Your task to perform on an android device: turn notification dots off Image 0: 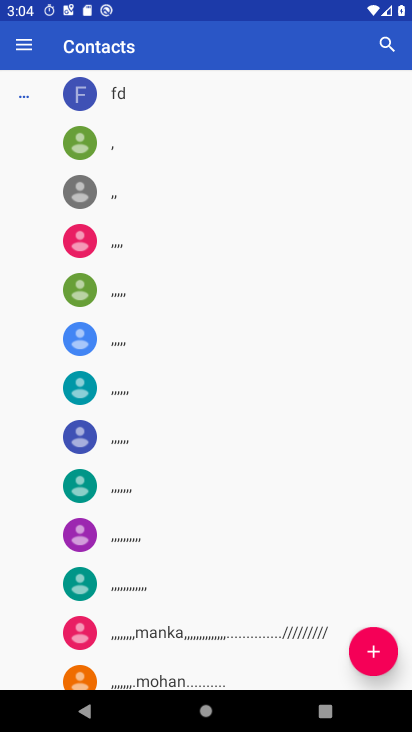
Step 0: press home button
Your task to perform on an android device: turn notification dots off Image 1: 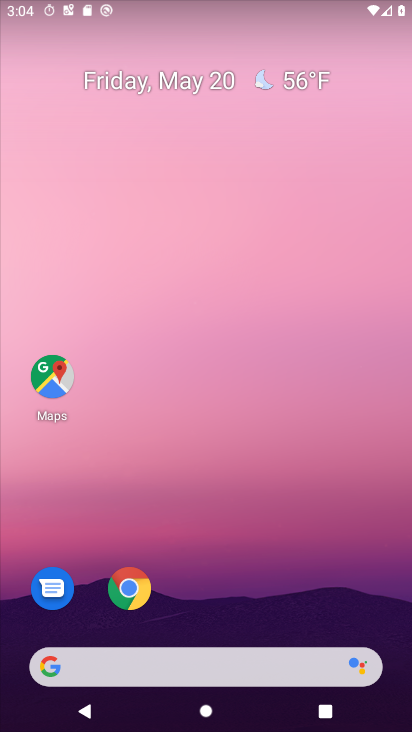
Step 1: drag from (24, 392) to (121, 98)
Your task to perform on an android device: turn notification dots off Image 2: 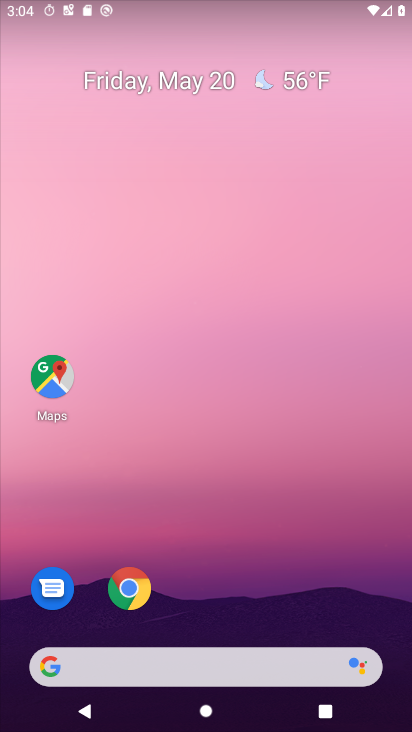
Step 2: drag from (1, 657) to (220, 212)
Your task to perform on an android device: turn notification dots off Image 3: 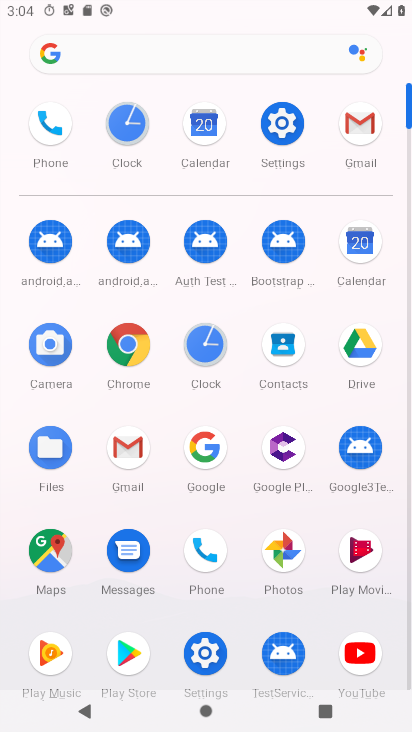
Step 3: click (262, 128)
Your task to perform on an android device: turn notification dots off Image 4: 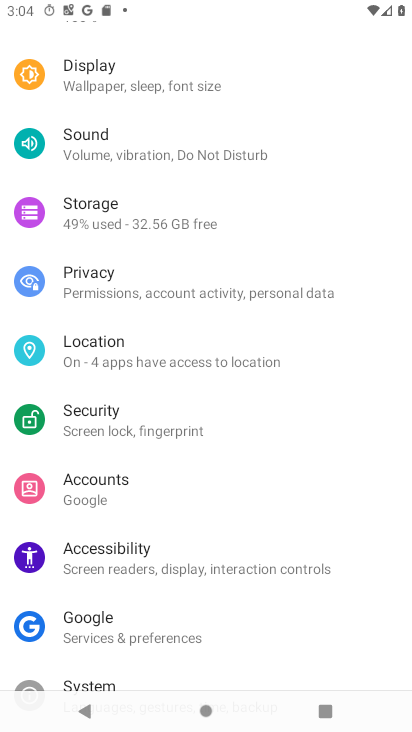
Step 4: drag from (103, 172) to (111, 541)
Your task to perform on an android device: turn notification dots off Image 5: 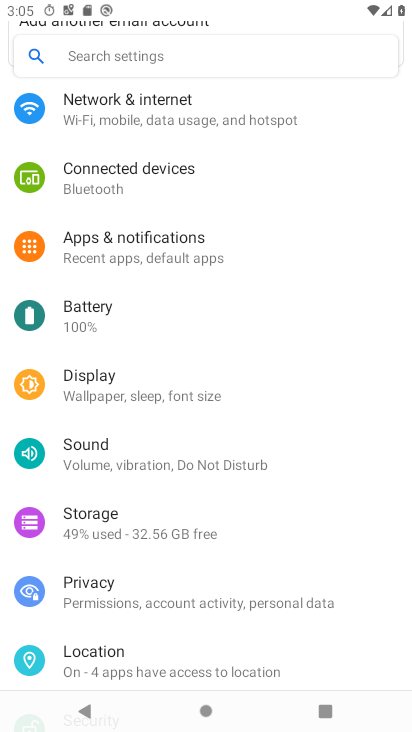
Step 5: click (118, 245)
Your task to perform on an android device: turn notification dots off Image 6: 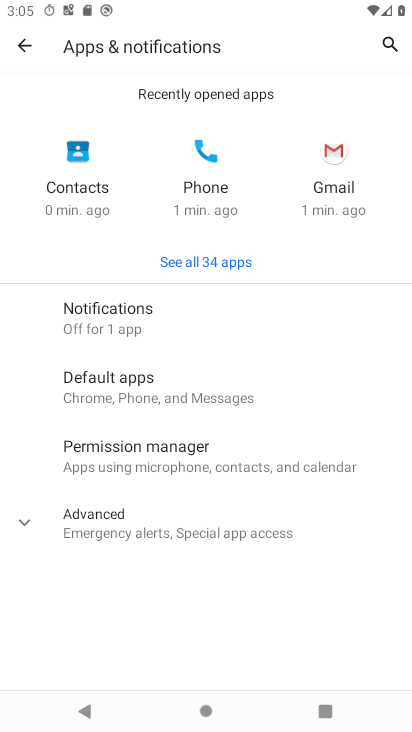
Step 6: click (86, 320)
Your task to perform on an android device: turn notification dots off Image 7: 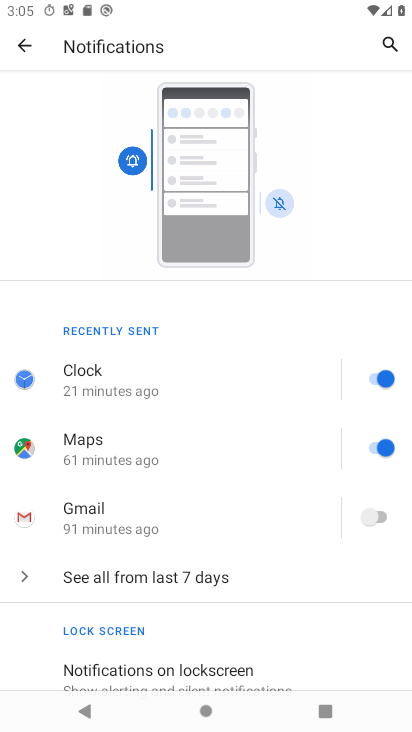
Step 7: drag from (10, 552) to (135, 167)
Your task to perform on an android device: turn notification dots off Image 8: 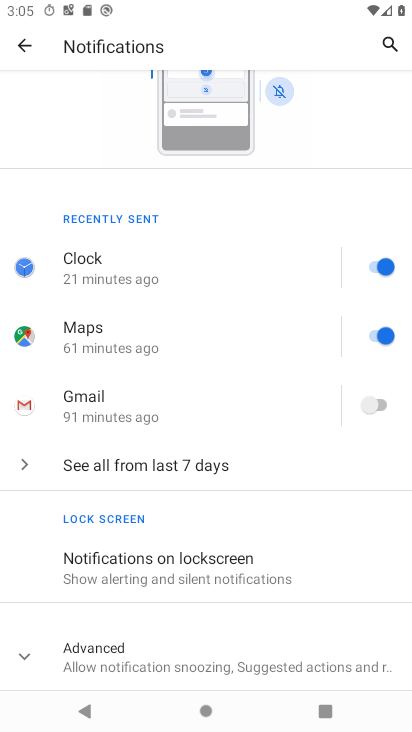
Step 8: click (139, 646)
Your task to perform on an android device: turn notification dots off Image 9: 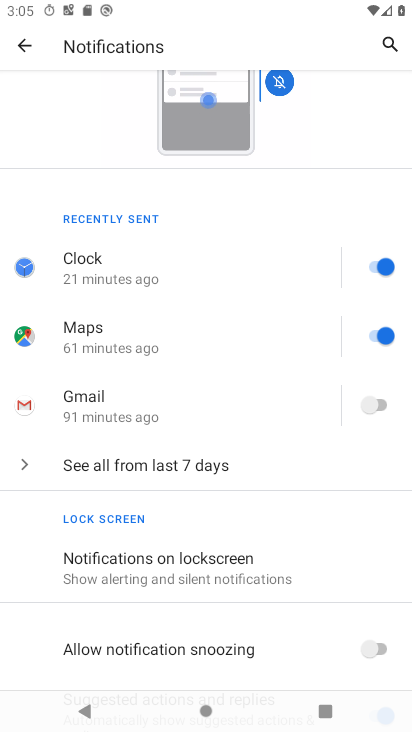
Step 9: task complete